Your task to perform on an android device: turn on wifi Image 0: 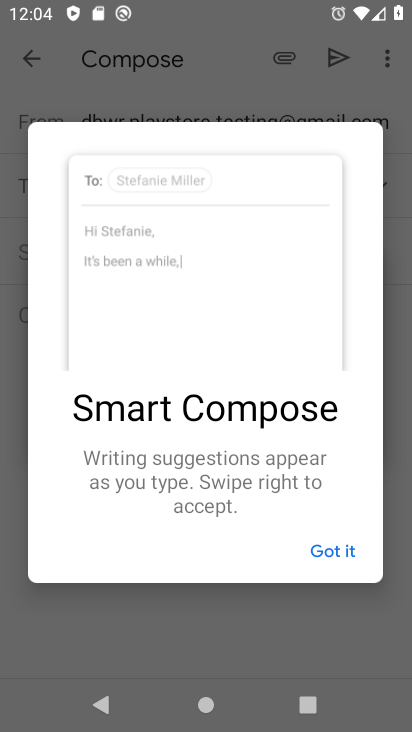
Step 0: press home button
Your task to perform on an android device: turn on wifi Image 1: 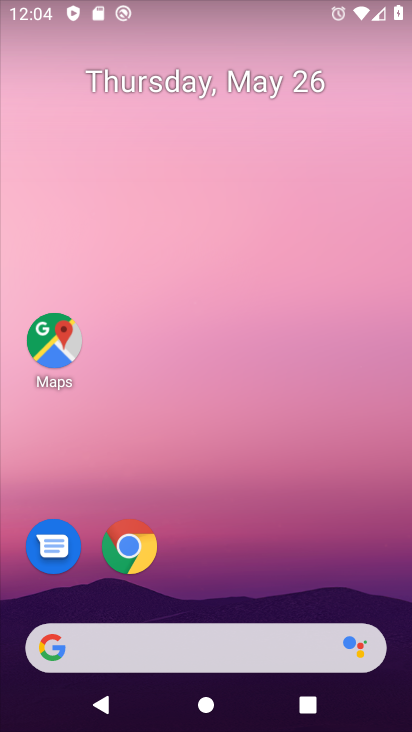
Step 1: drag from (254, 672) to (339, 126)
Your task to perform on an android device: turn on wifi Image 2: 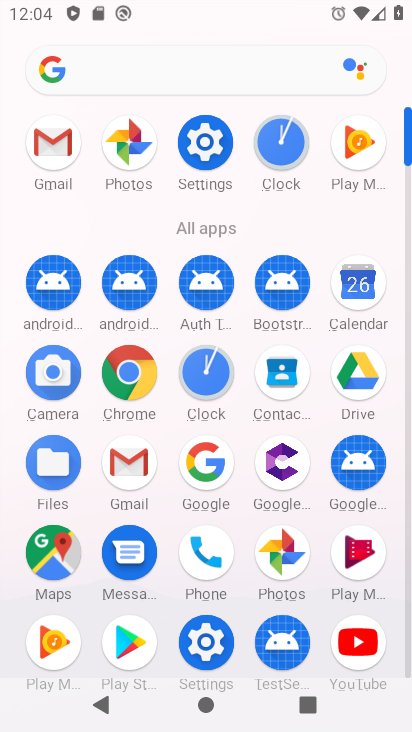
Step 2: click (212, 133)
Your task to perform on an android device: turn on wifi Image 3: 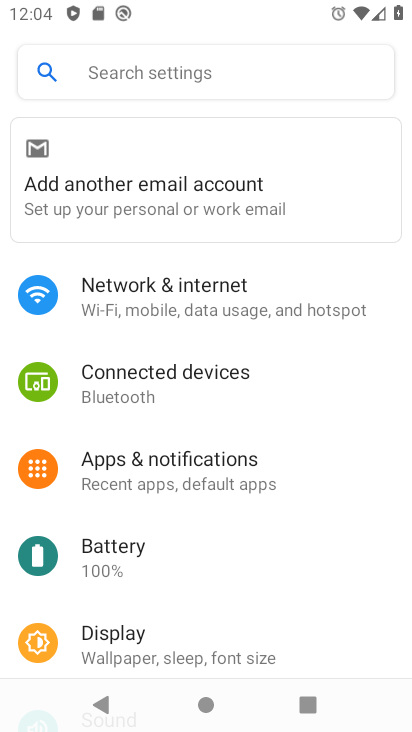
Step 3: click (236, 297)
Your task to perform on an android device: turn on wifi Image 4: 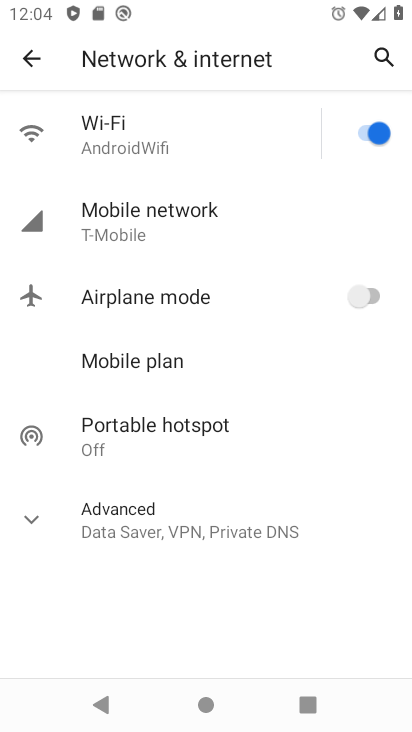
Step 4: task complete